Your task to perform on an android device: turn notification dots on Image 0: 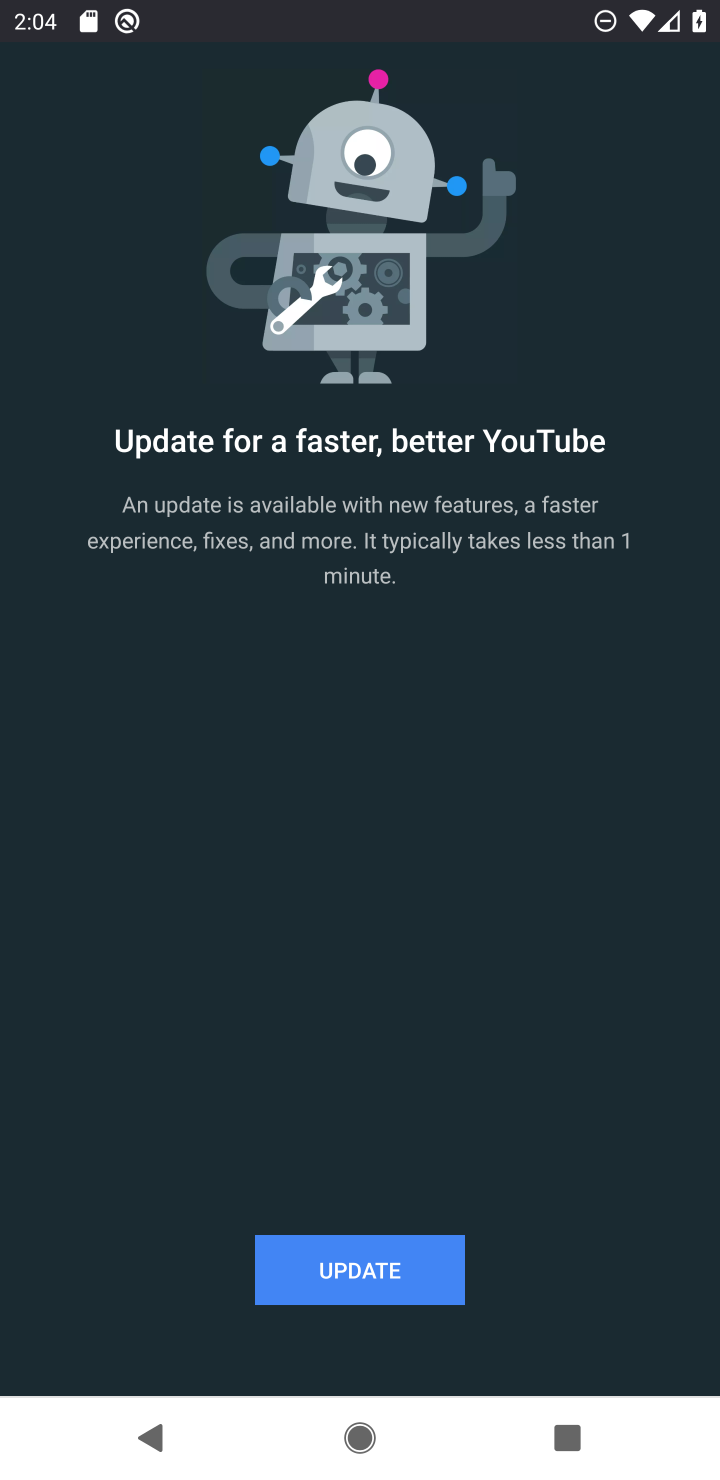
Step 0: press home button
Your task to perform on an android device: turn notification dots on Image 1: 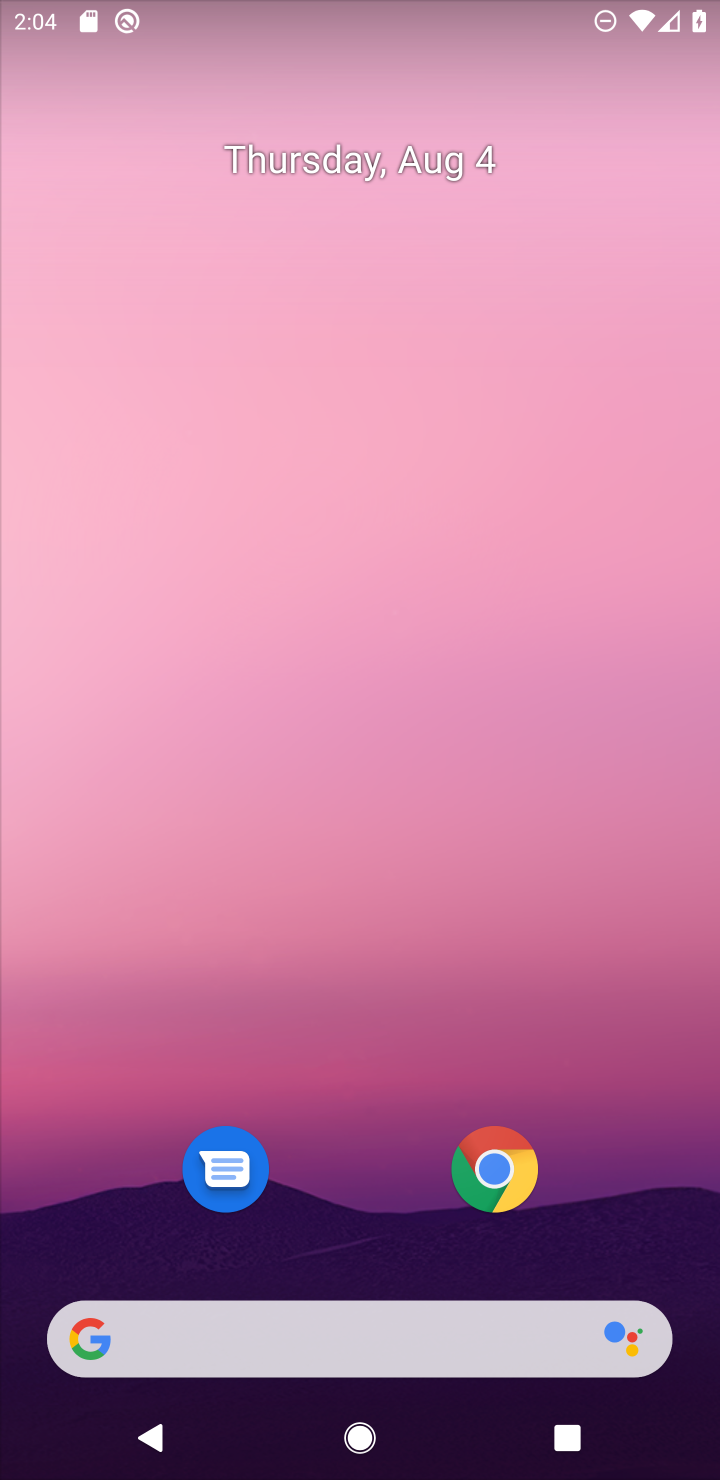
Step 1: drag from (653, 908) to (715, 182)
Your task to perform on an android device: turn notification dots on Image 2: 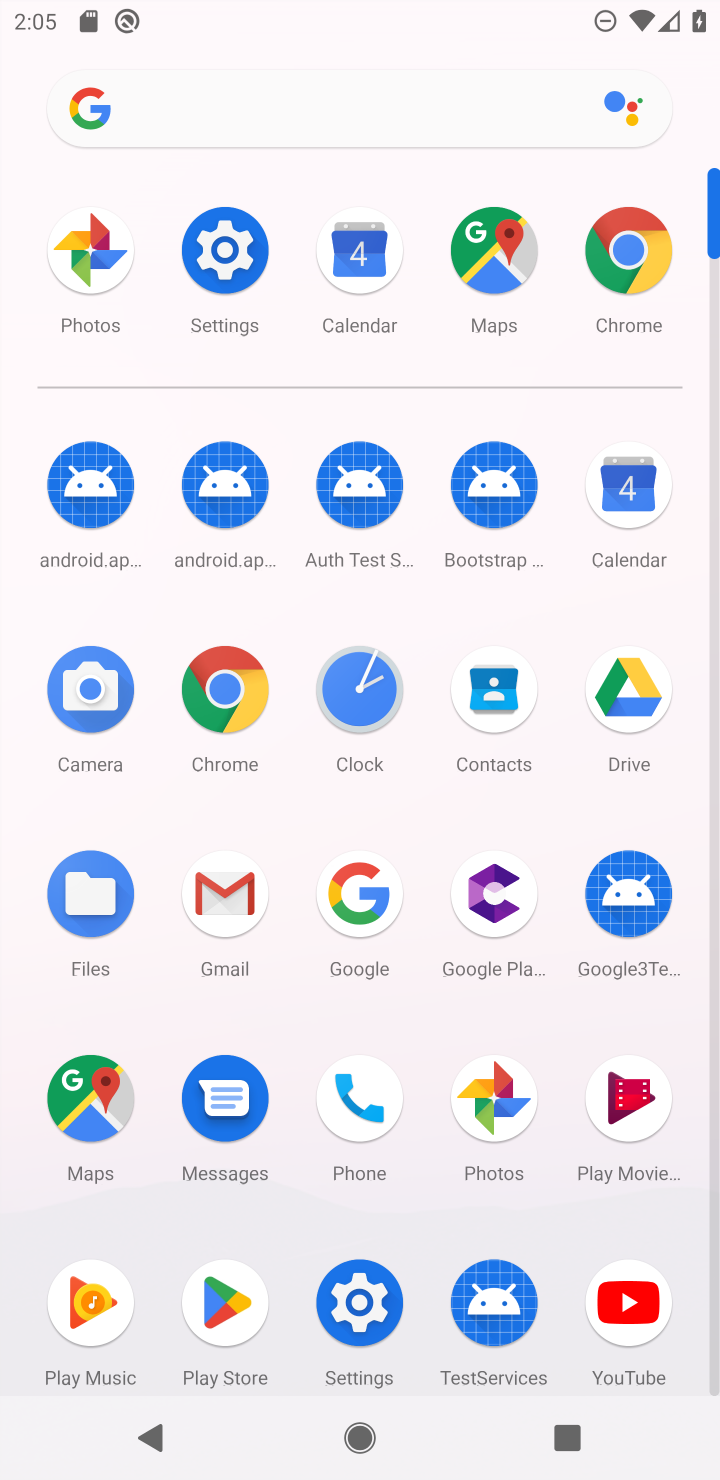
Step 2: click (229, 248)
Your task to perform on an android device: turn notification dots on Image 3: 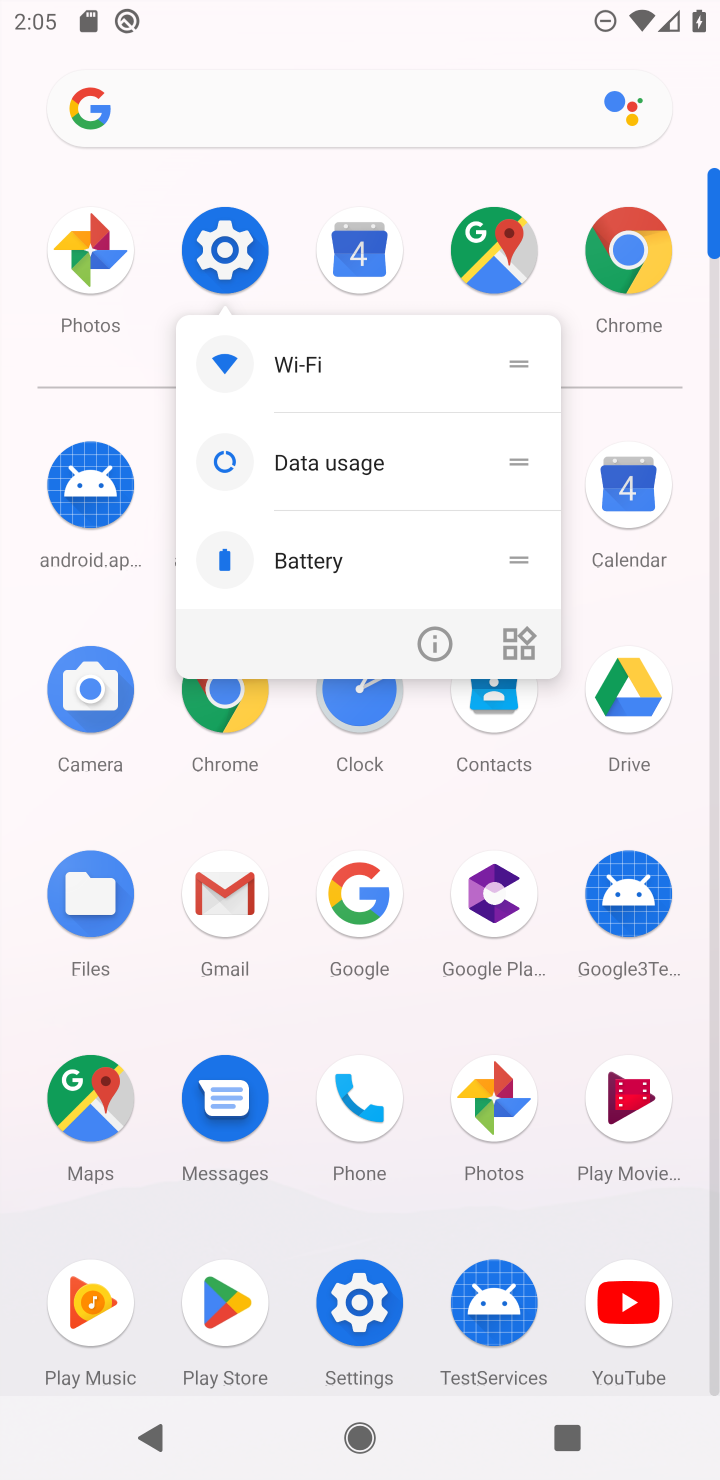
Step 3: click (229, 248)
Your task to perform on an android device: turn notification dots on Image 4: 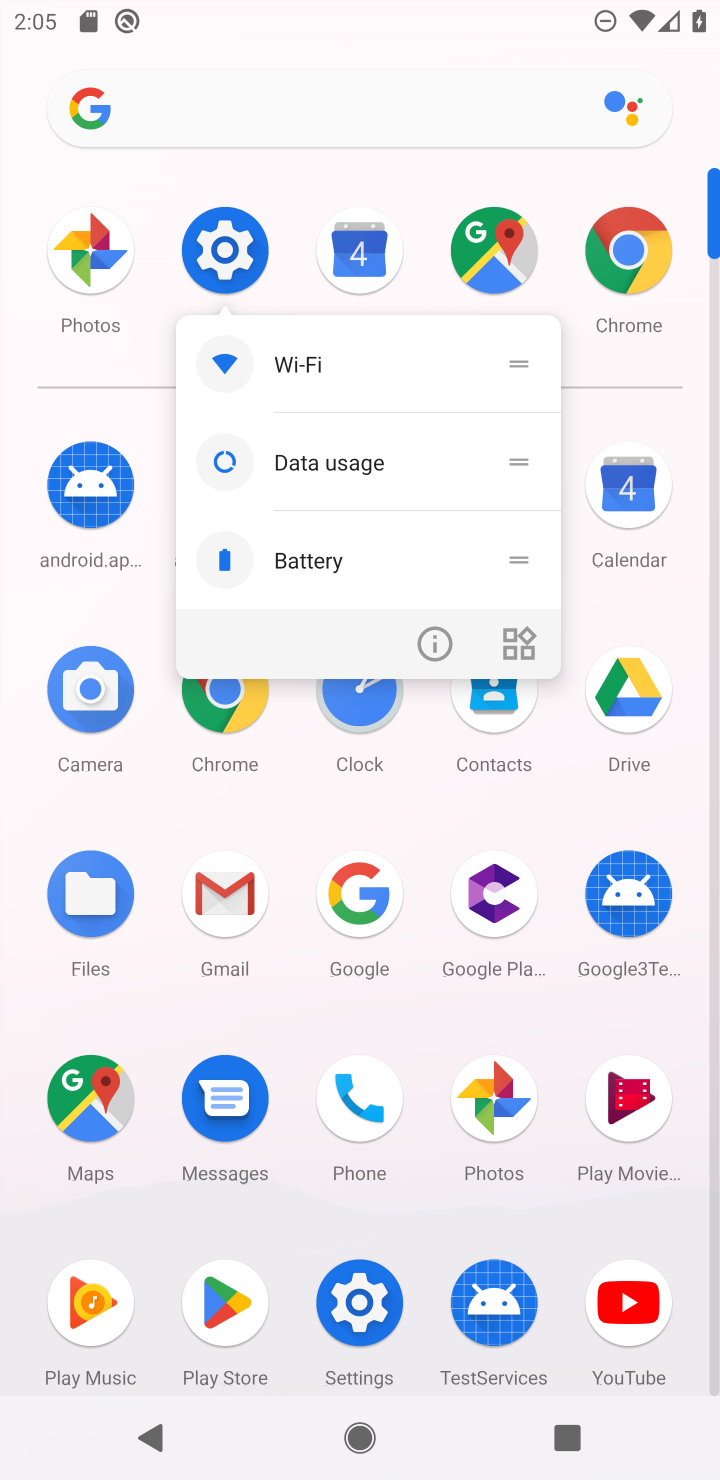
Step 4: click (229, 248)
Your task to perform on an android device: turn notification dots on Image 5: 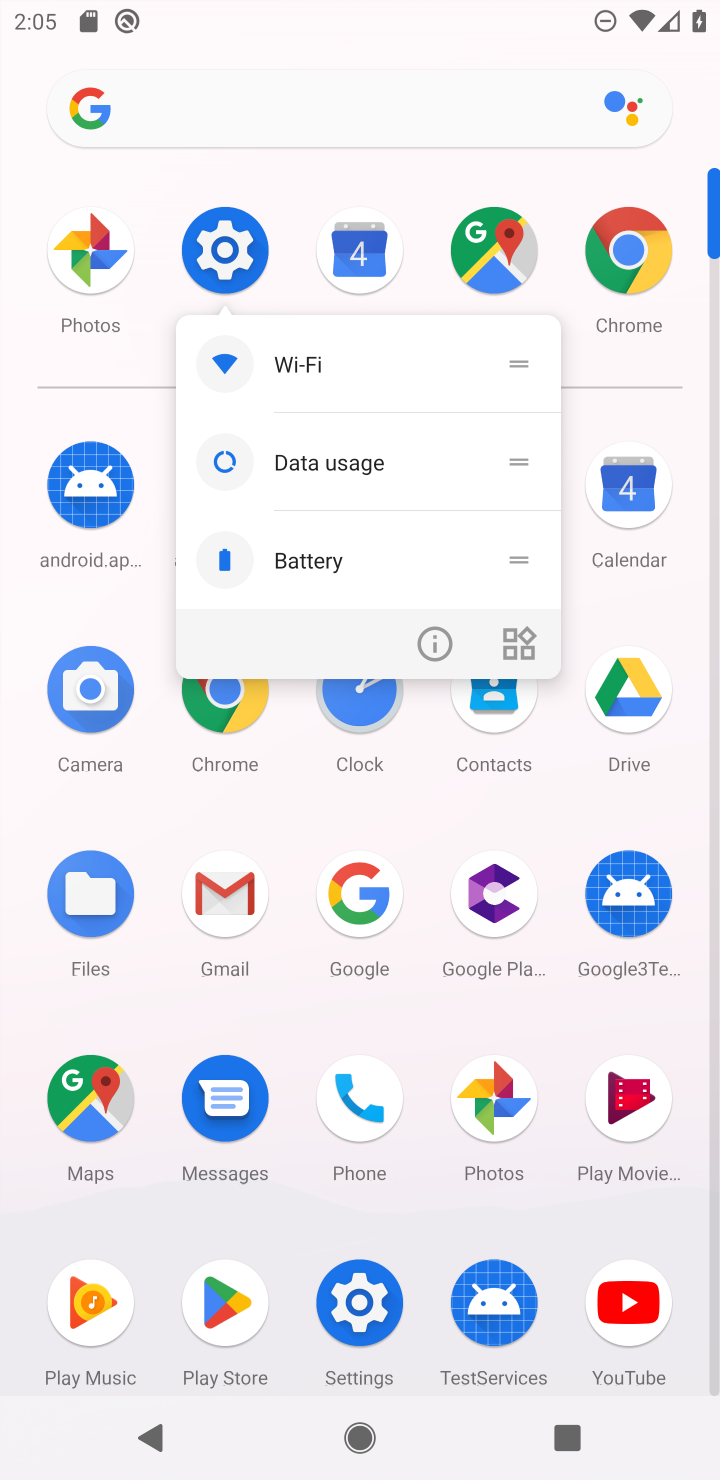
Step 5: click (229, 248)
Your task to perform on an android device: turn notification dots on Image 6: 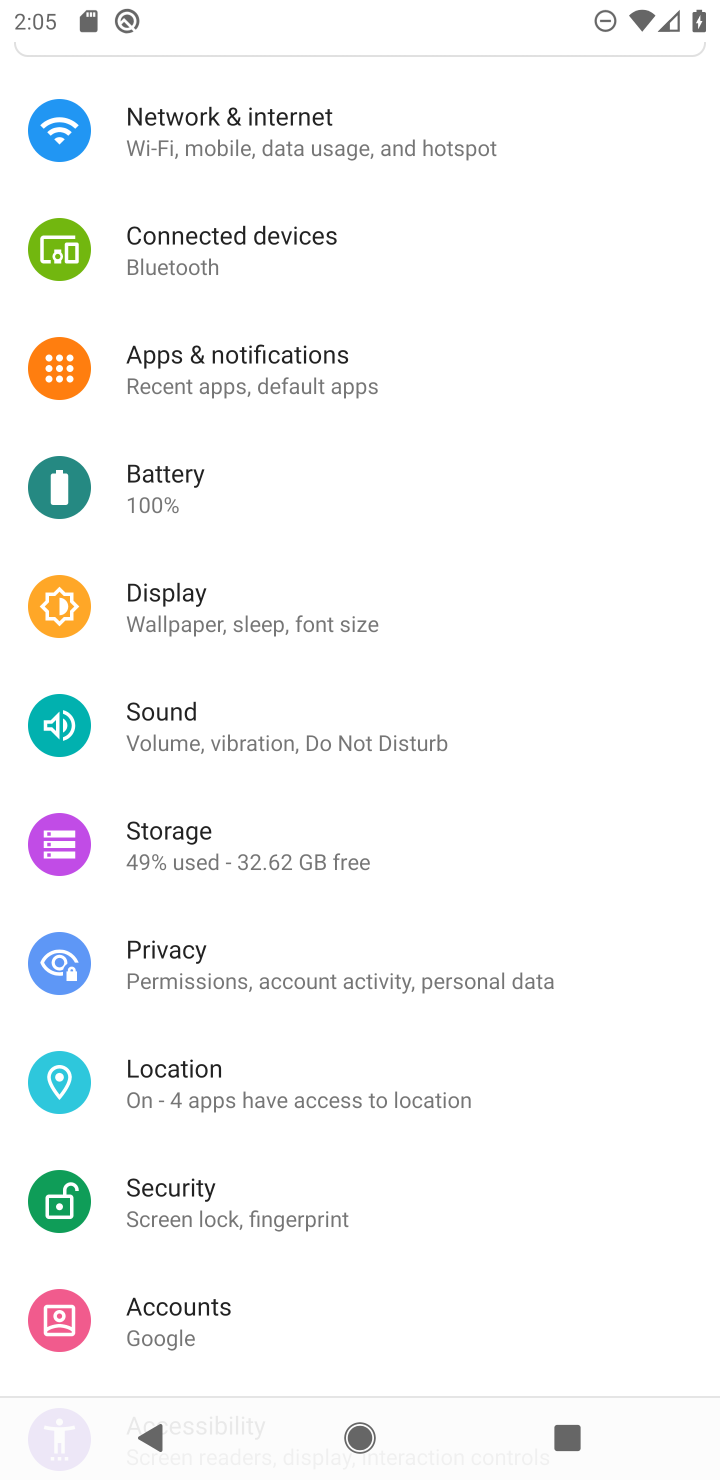
Step 6: click (212, 358)
Your task to perform on an android device: turn notification dots on Image 7: 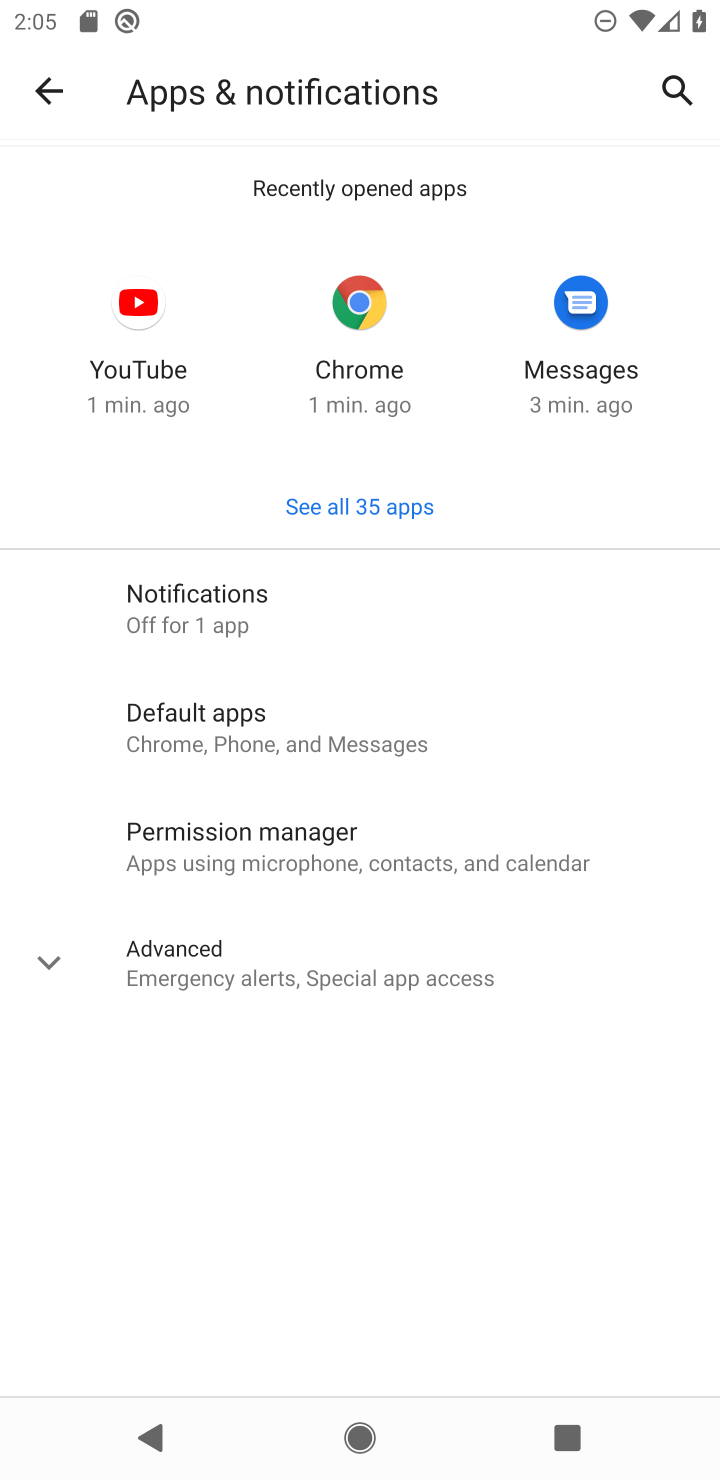
Step 7: click (207, 610)
Your task to perform on an android device: turn notification dots on Image 8: 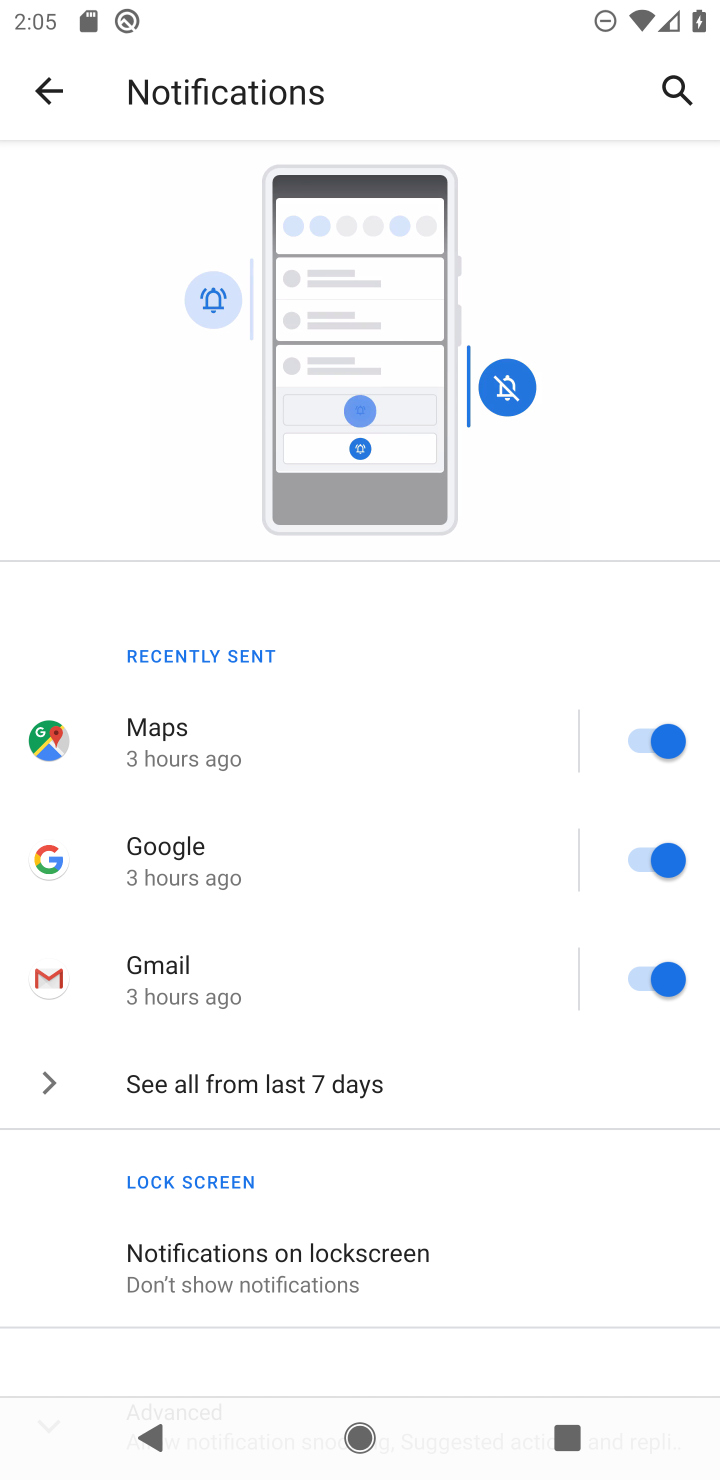
Step 8: drag from (395, 1185) to (421, 652)
Your task to perform on an android device: turn notification dots on Image 9: 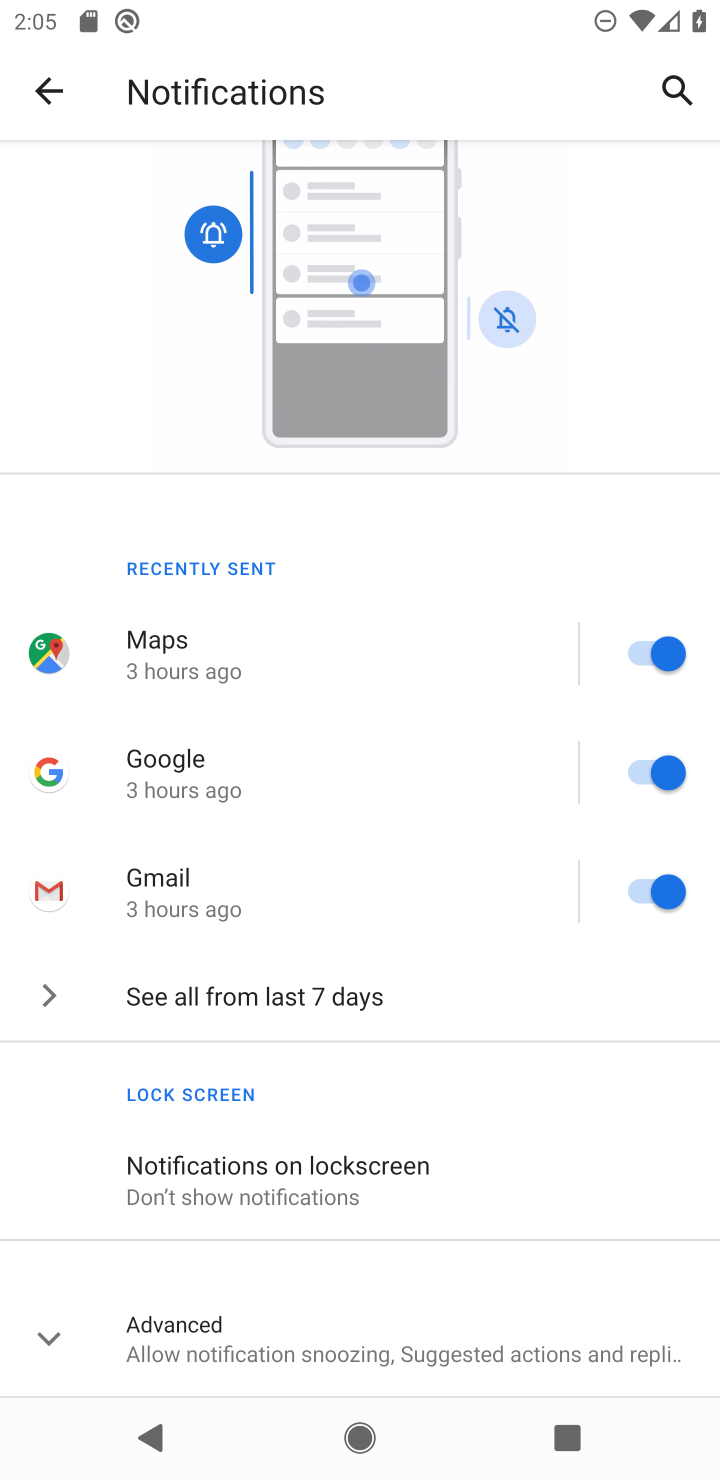
Step 9: click (54, 1353)
Your task to perform on an android device: turn notification dots on Image 10: 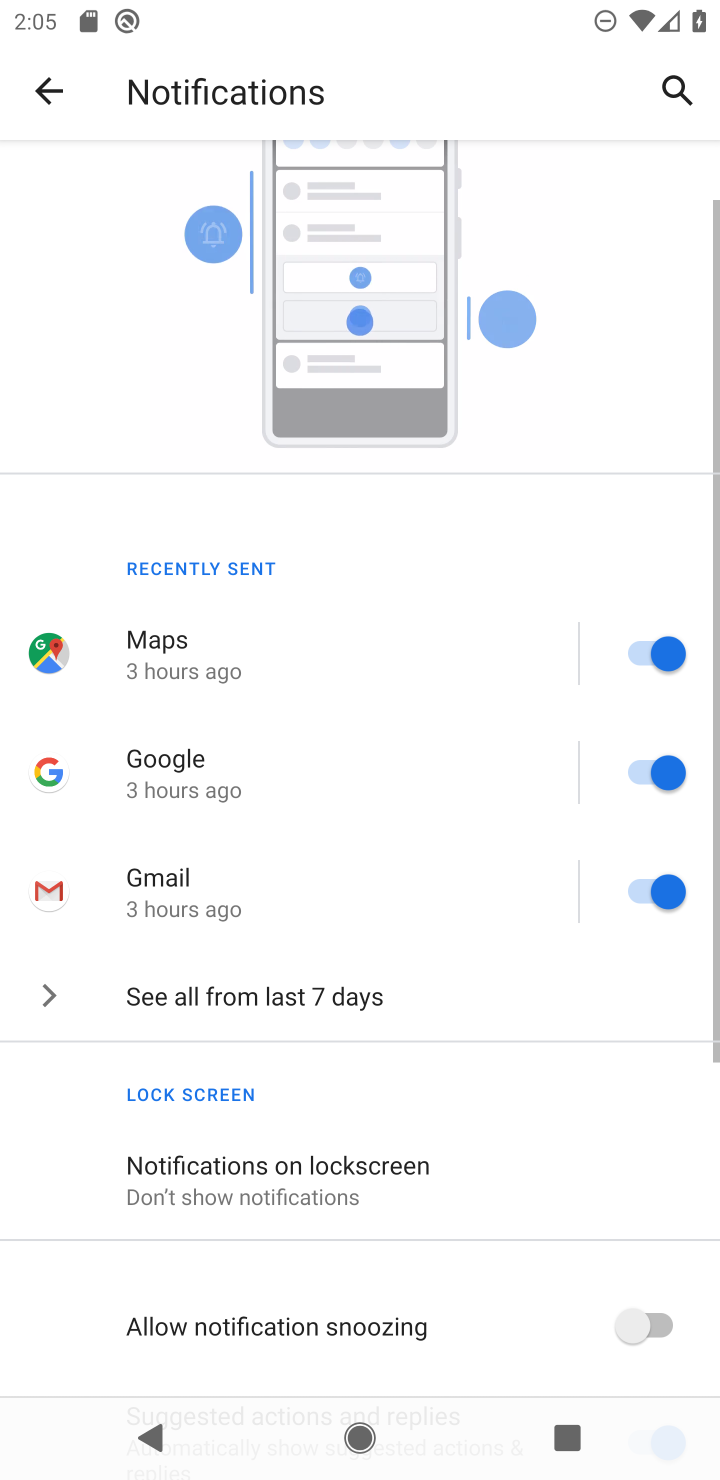
Step 10: drag from (322, 1306) to (361, 602)
Your task to perform on an android device: turn notification dots on Image 11: 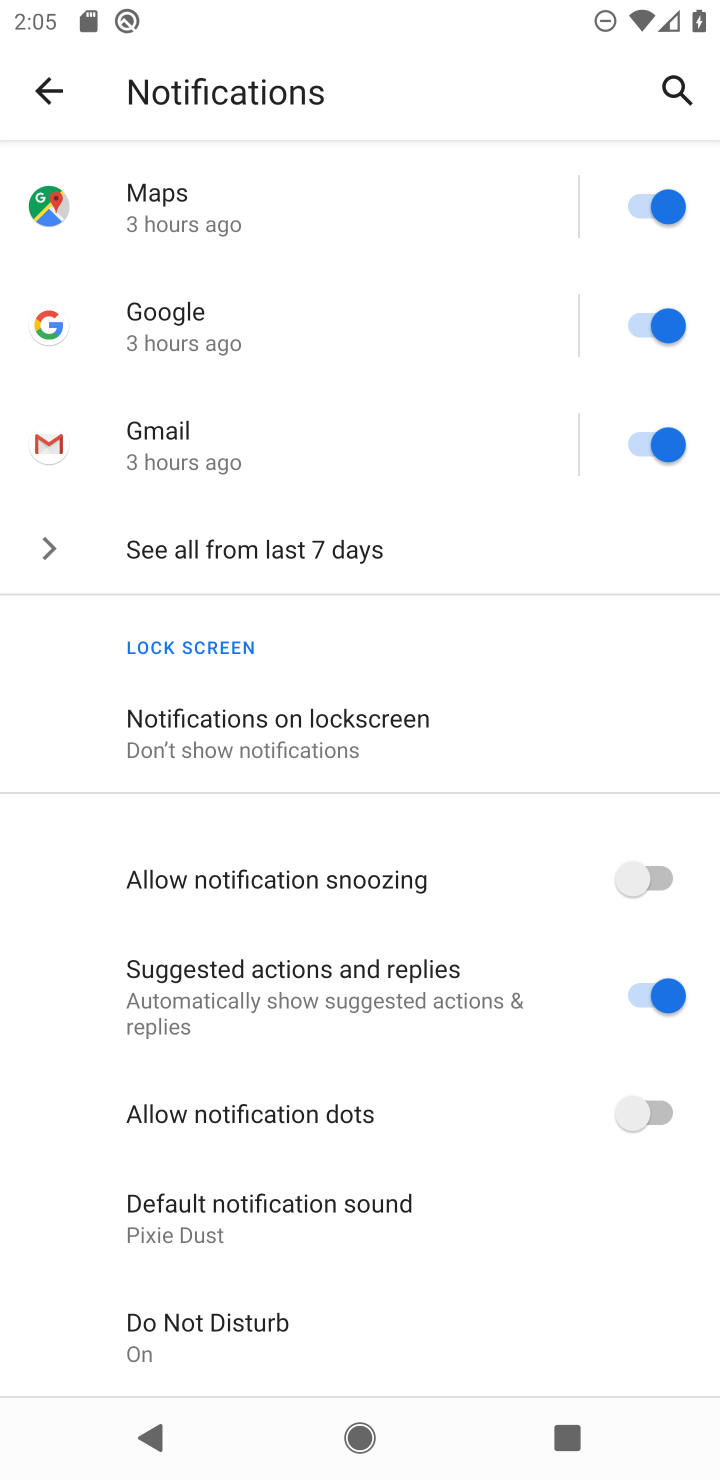
Step 11: click (655, 1126)
Your task to perform on an android device: turn notification dots on Image 12: 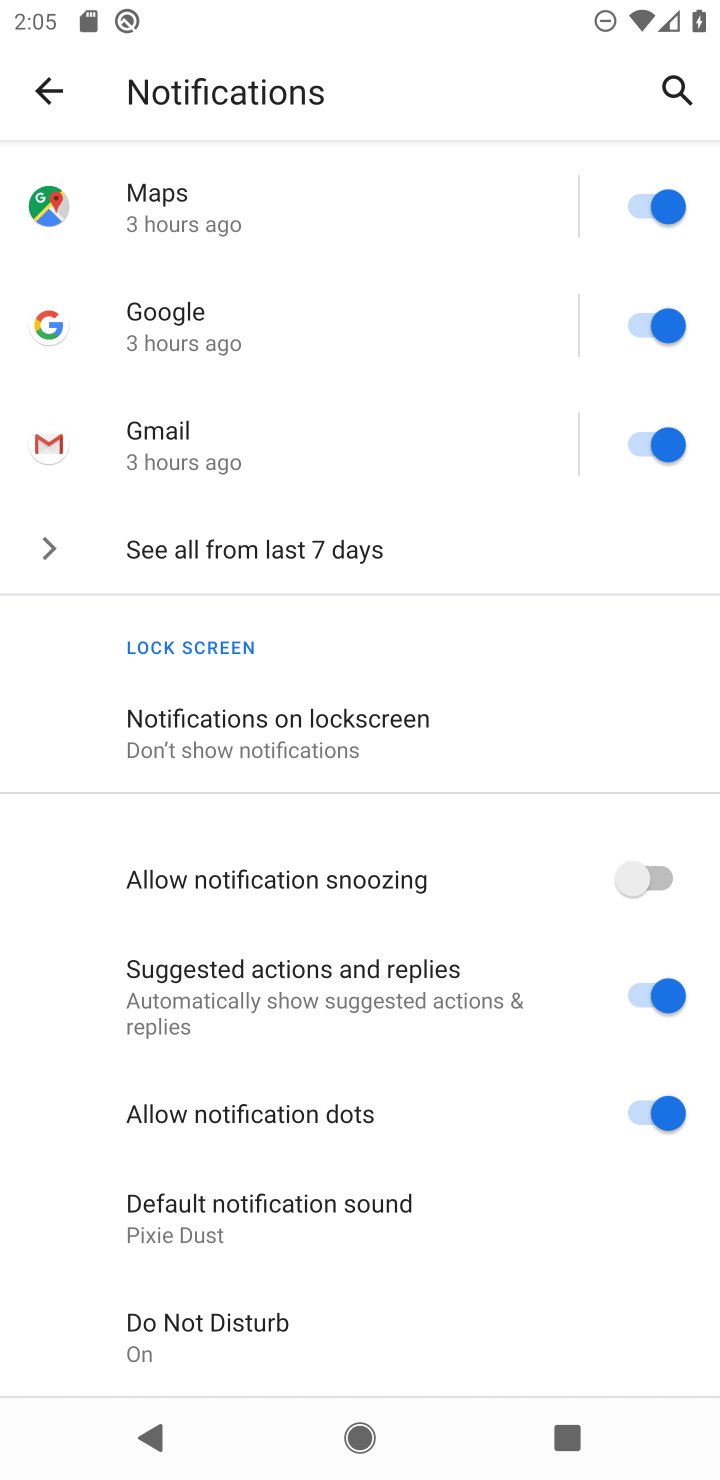
Step 12: task complete